Your task to perform on an android device: Open Wikipedia Image 0: 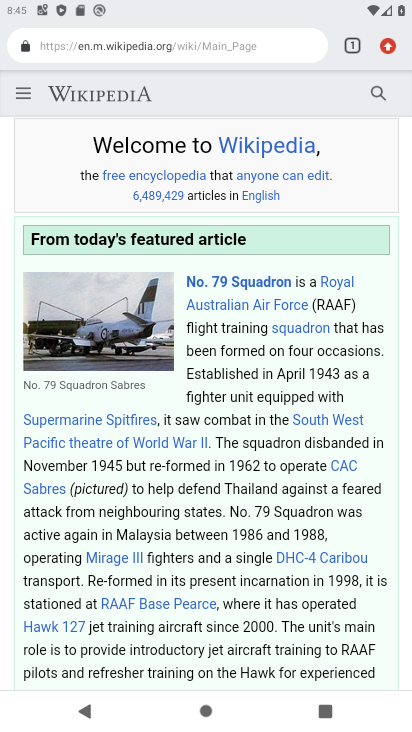
Step 0: press home button
Your task to perform on an android device: Open Wikipedia Image 1: 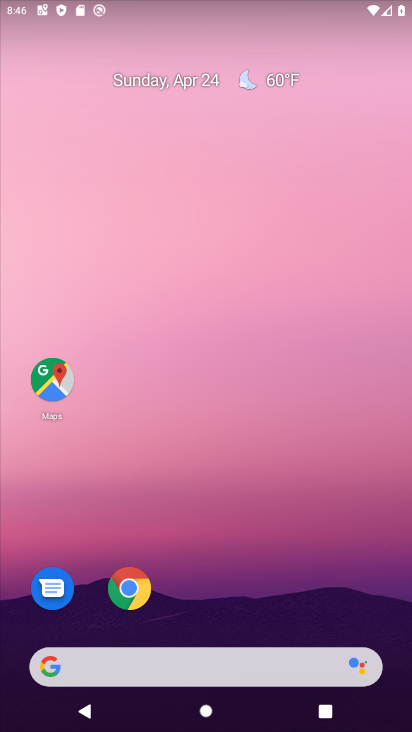
Step 1: click (129, 588)
Your task to perform on an android device: Open Wikipedia Image 2: 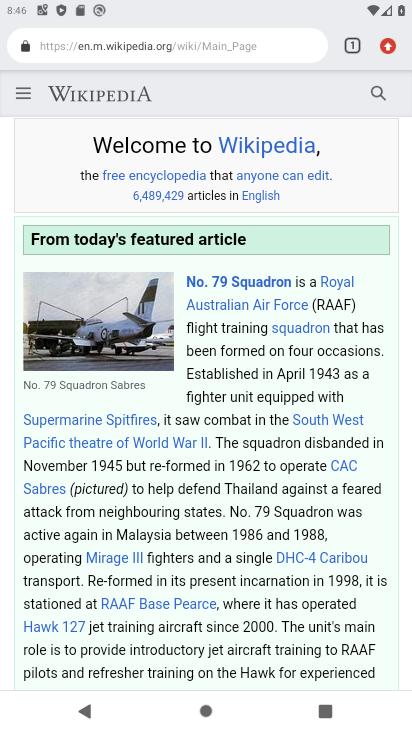
Step 2: task complete